Your task to perform on an android device: set an alarm Image 0: 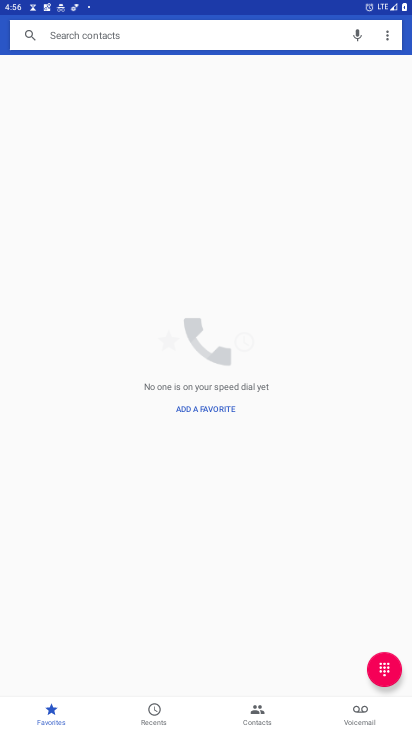
Step 0: press home button
Your task to perform on an android device: set an alarm Image 1: 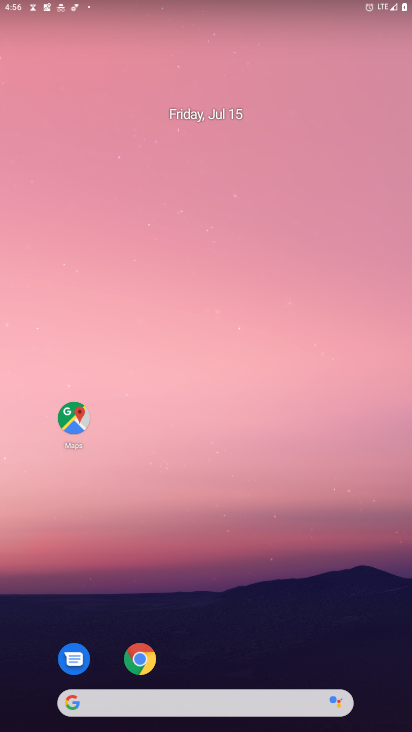
Step 1: drag from (246, 618) to (286, 0)
Your task to perform on an android device: set an alarm Image 2: 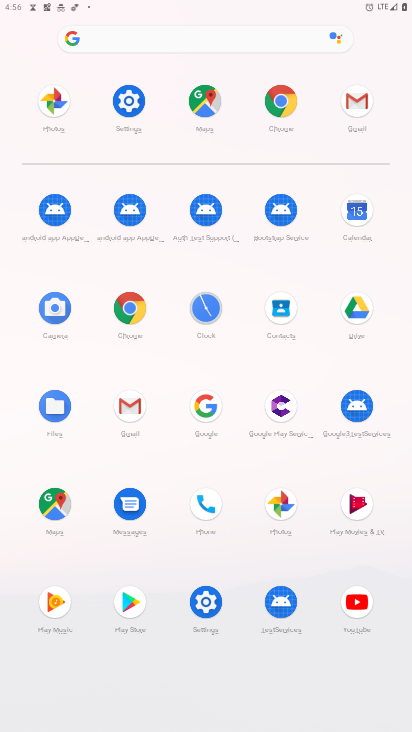
Step 2: click (199, 356)
Your task to perform on an android device: set an alarm Image 3: 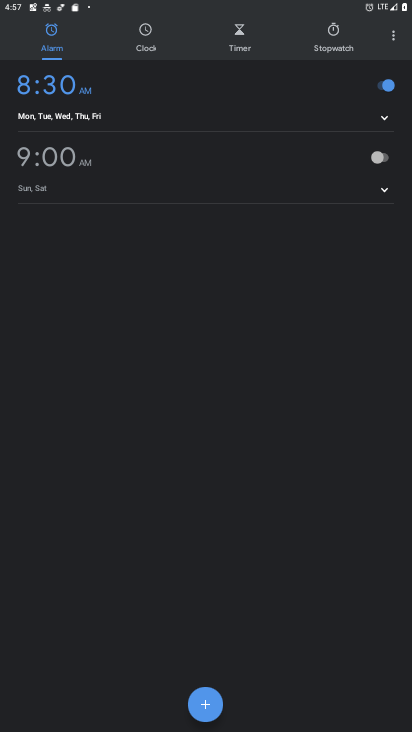
Step 3: click (390, 158)
Your task to perform on an android device: set an alarm Image 4: 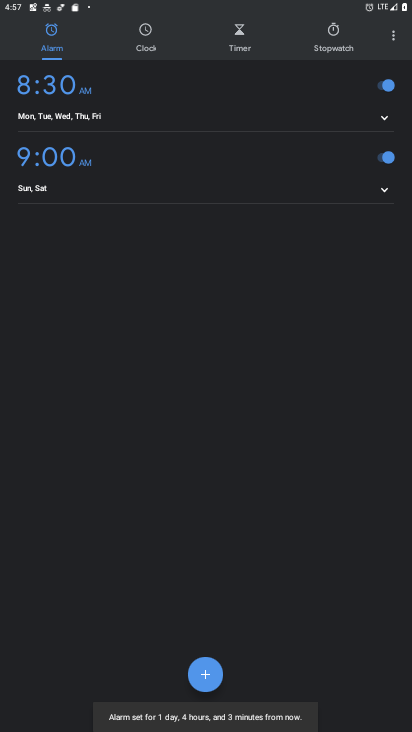
Step 4: task complete